Your task to perform on an android device: Empty the shopping cart on amazon.com. Add "alienware aurora" to the cart on amazon.com Image 0: 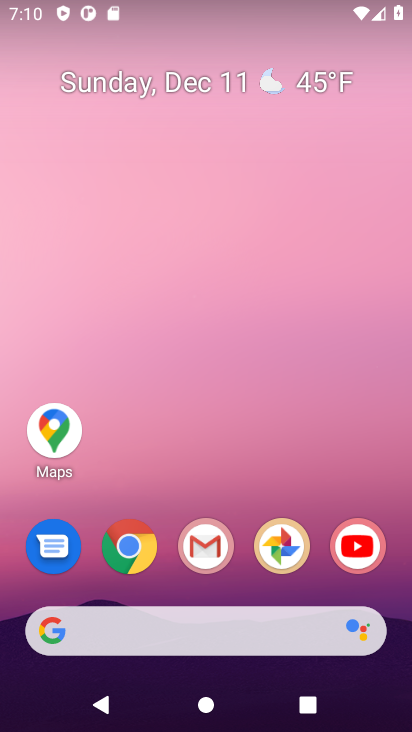
Step 0: click (130, 551)
Your task to perform on an android device: Empty the shopping cart on amazon.com. Add "alienware aurora" to the cart on amazon.com Image 1: 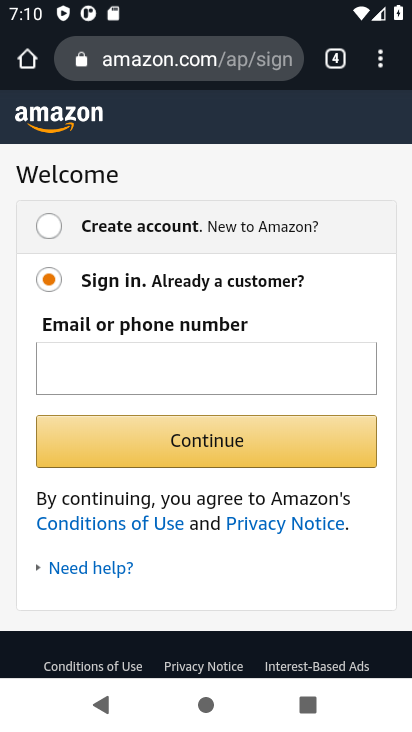
Step 1: press back button
Your task to perform on an android device: Empty the shopping cart on amazon.com. Add "alienware aurora" to the cart on amazon.com Image 2: 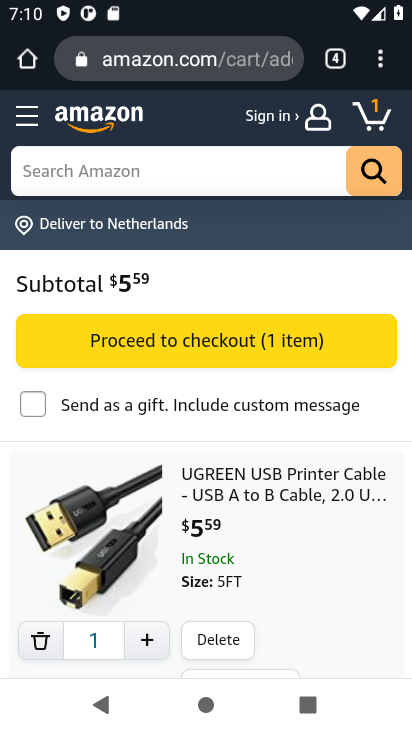
Step 2: drag from (266, 526) to (261, 347)
Your task to perform on an android device: Empty the shopping cart on amazon.com. Add "alienware aurora" to the cart on amazon.com Image 3: 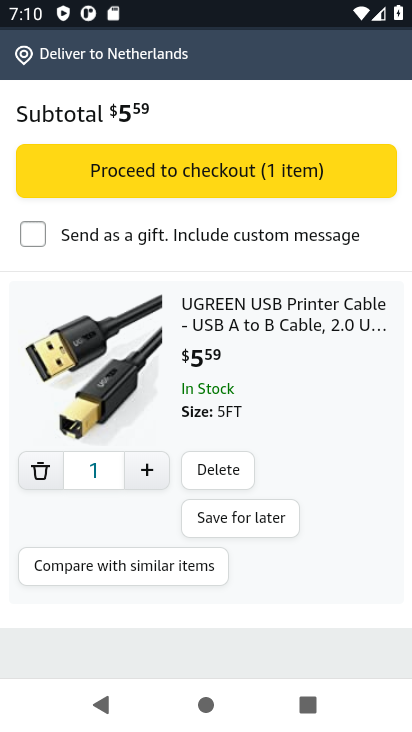
Step 3: click (38, 470)
Your task to perform on an android device: Empty the shopping cart on amazon.com. Add "alienware aurora" to the cart on amazon.com Image 4: 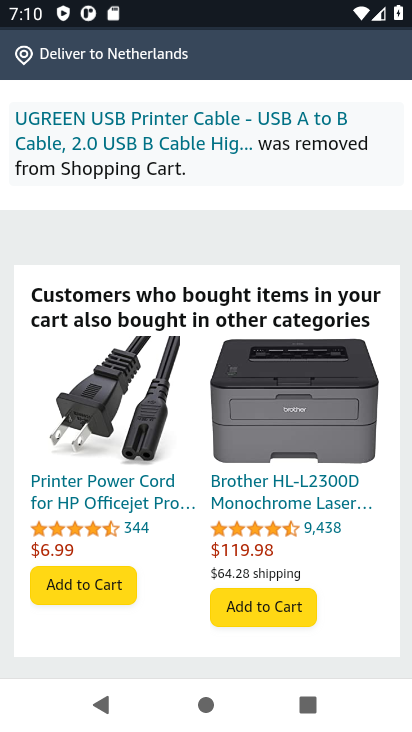
Step 4: drag from (207, 241) to (197, 520)
Your task to perform on an android device: Empty the shopping cart on amazon.com. Add "alienware aurora" to the cart on amazon.com Image 5: 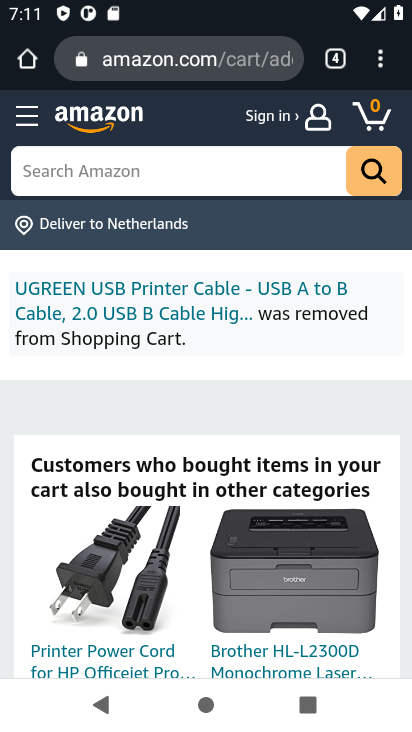
Step 5: click (87, 178)
Your task to perform on an android device: Empty the shopping cart on amazon.com. Add "alienware aurora" to the cart on amazon.com Image 6: 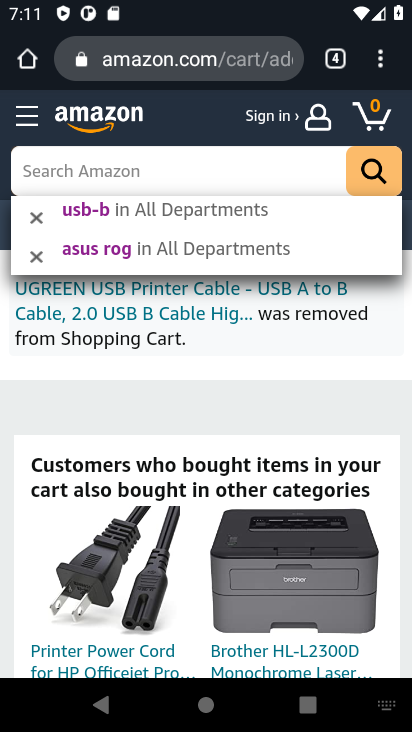
Step 6: type "alienware aurora"
Your task to perform on an android device: Empty the shopping cart on amazon.com. Add "alienware aurora" to the cart on amazon.com Image 7: 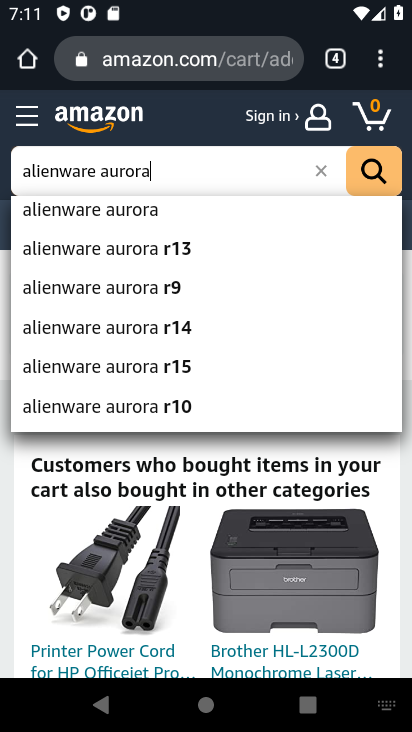
Step 7: click (106, 215)
Your task to perform on an android device: Empty the shopping cart on amazon.com. Add "alienware aurora" to the cart on amazon.com Image 8: 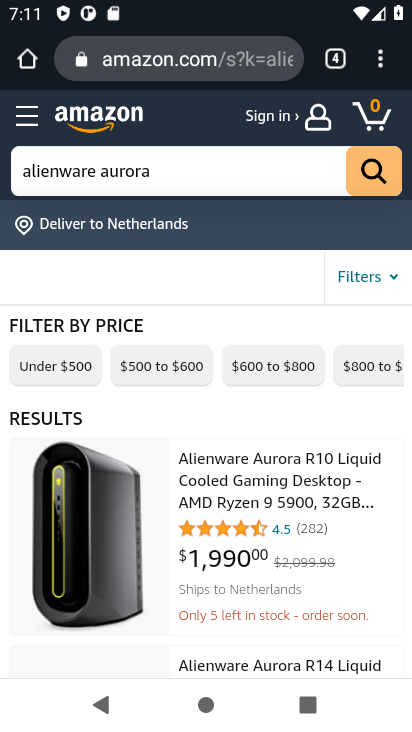
Step 8: drag from (147, 508) to (177, 199)
Your task to perform on an android device: Empty the shopping cart on amazon.com. Add "alienware aurora" to the cart on amazon.com Image 9: 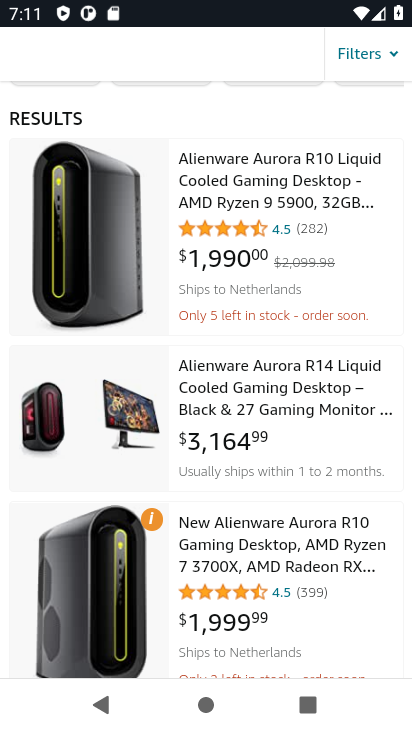
Step 9: click (212, 190)
Your task to perform on an android device: Empty the shopping cart on amazon.com. Add "alienware aurora" to the cart on amazon.com Image 10: 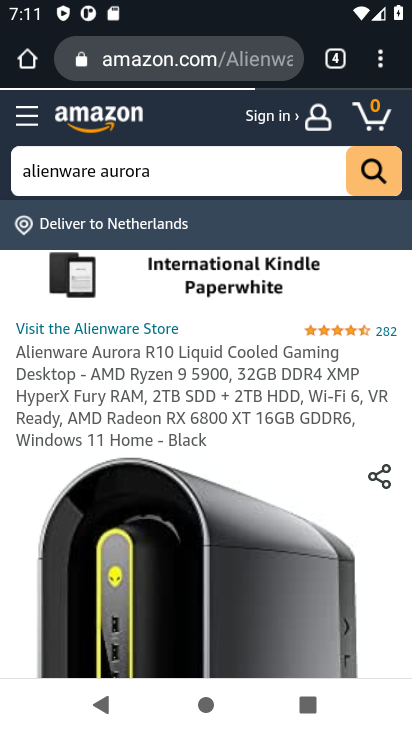
Step 10: drag from (199, 434) to (195, 125)
Your task to perform on an android device: Empty the shopping cart on amazon.com. Add "alienware aurora" to the cart on amazon.com Image 11: 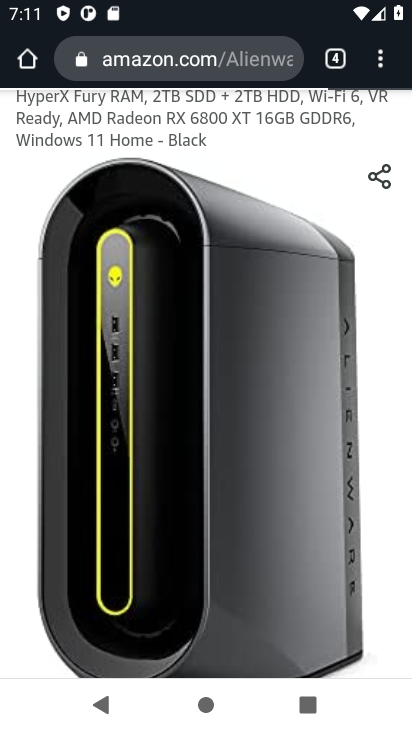
Step 11: drag from (188, 468) to (167, 121)
Your task to perform on an android device: Empty the shopping cart on amazon.com. Add "alienware aurora" to the cart on amazon.com Image 12: 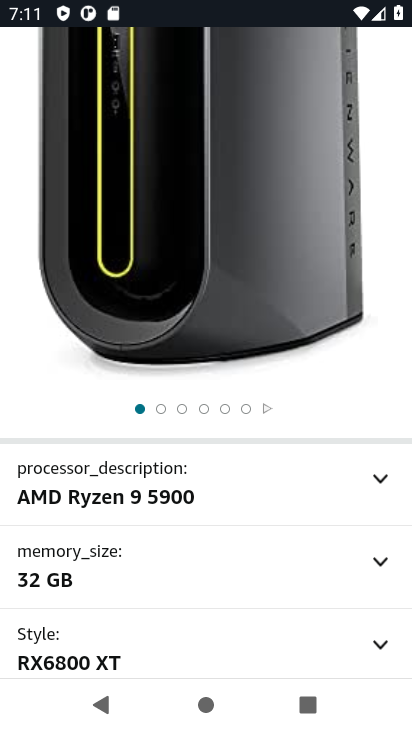
Step 12: drag from (164, 488) to (157, 146)
Your task to perform on an android device: Empty the shopping cart on amazon.com. Add "alienware aurora" to the cart on amazon.com Image 13: 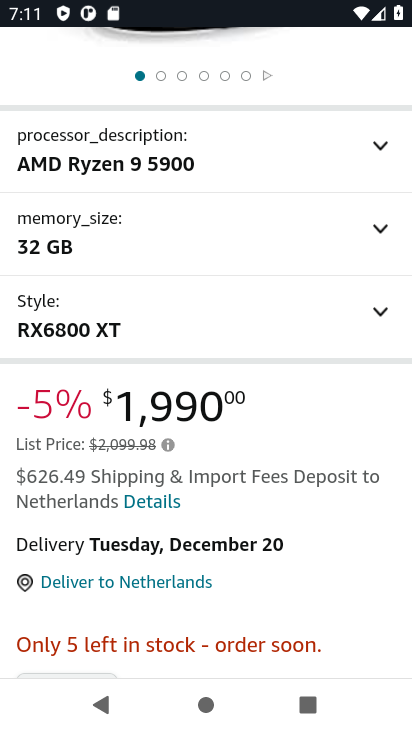
Step 13: drag from (111, 513) to (110, 120)
Your task to perform on an android device: Empty the shopping cart on amazon.com. Add "alienware aurora" to the cart on amazon.com Image 14: 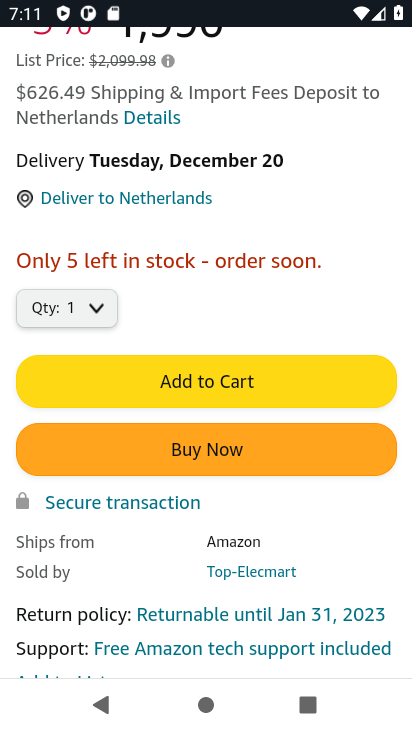
Step 14: click (148, 379)
Your task to perform on an android device: Empty the shopping cart on amazon.com. Add "alienware aurora" to the cart on amazon.com Image 15: 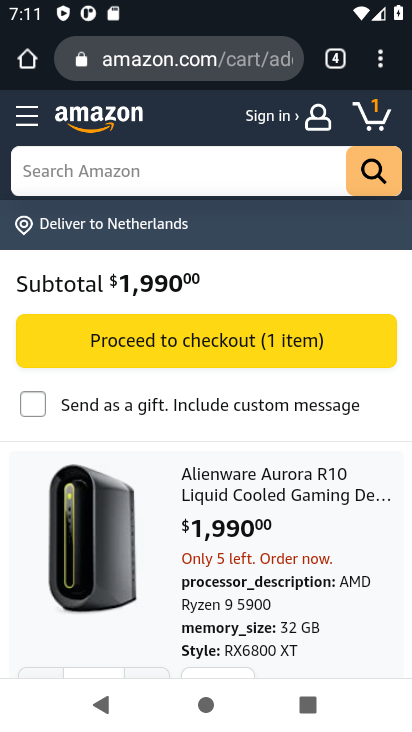
Step 15: task complete